Your task to perform on an android device: uninstall "Messages" Image 0: 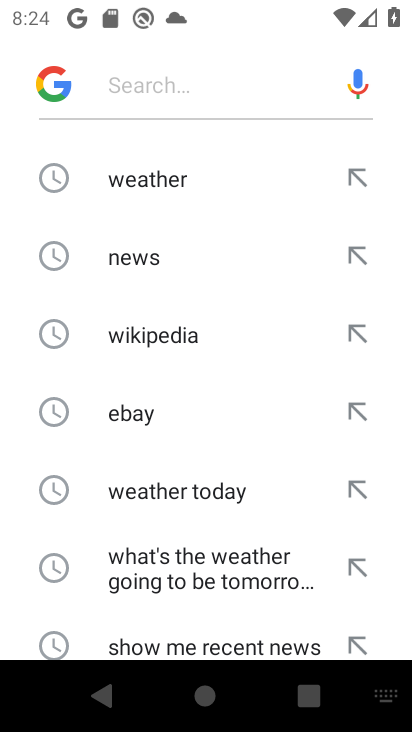
Step 0: press back button
Your task to perform on an android device: uninstall "Messages" Image 1: 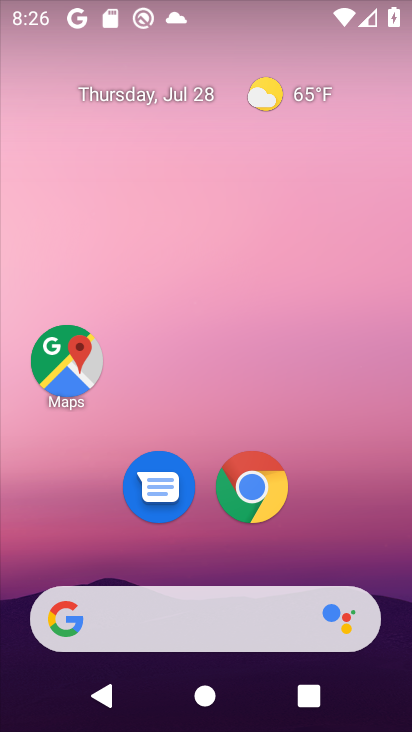
Step 1: drag from (249, 661) to (264, 231)
Your task to perform on an android device: uninstall "Messages" Image 2: 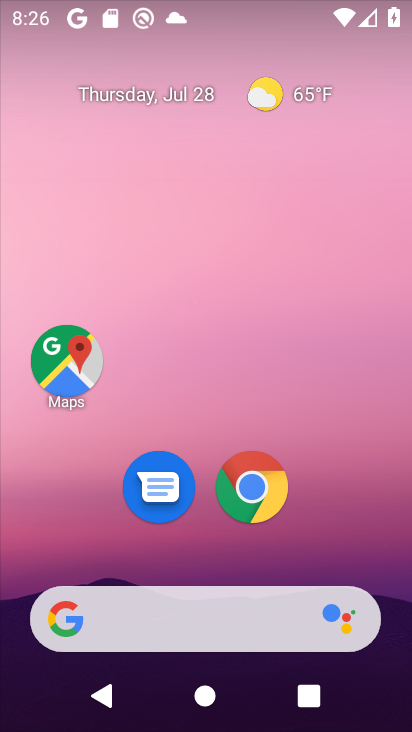
Step 2: drag from (278, 520) to (278, 350)
Your task to perform on an android device: uninstall "Messages" Image 3: 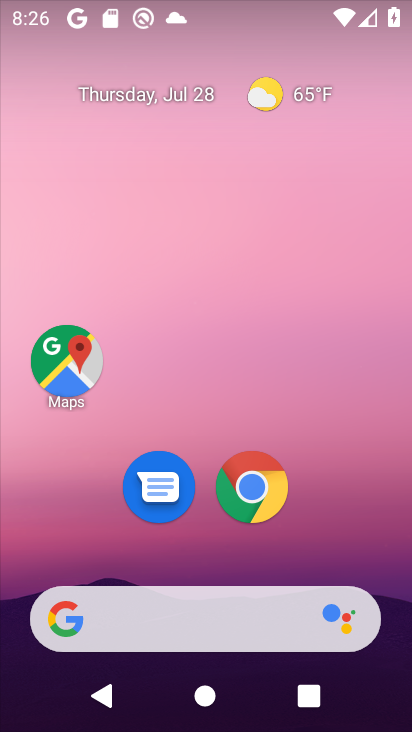
Step 3: drag from (237, 680) to (173, 245)
Your task to perform on an android device: uninstall "Messages" Image 4: 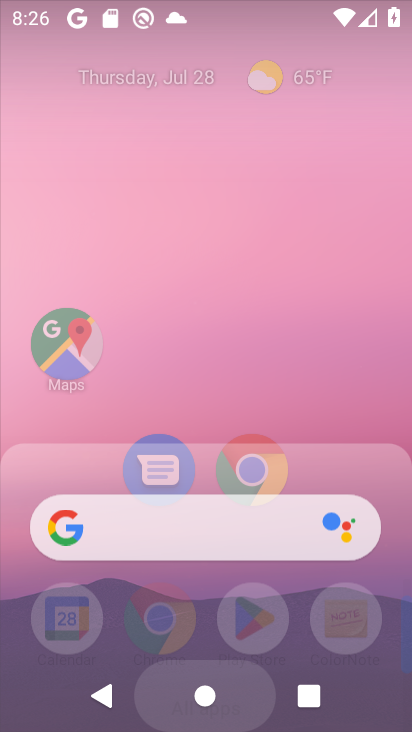
Step 4: drag from (215, 498) to (214, 306)
Your task to perform on an android device: uninstall "Messages" Image 5: 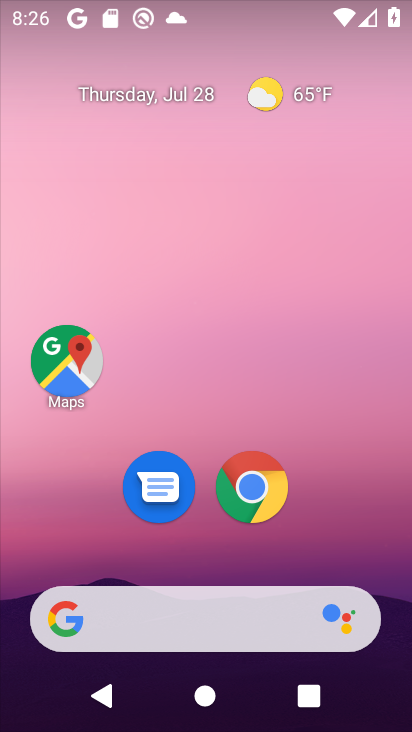
Step 5: drag from (231, 559) to (136, 188)
Your task to perform on an android device: uninstall "Messages" Image 6: 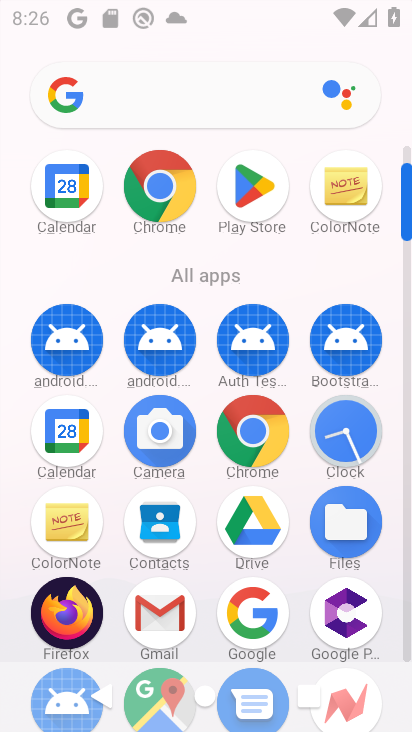
Step 6: drag from (270, 575) to (209, 152)
Your task to perform on an android device: uninstall "Messages" Image 7: 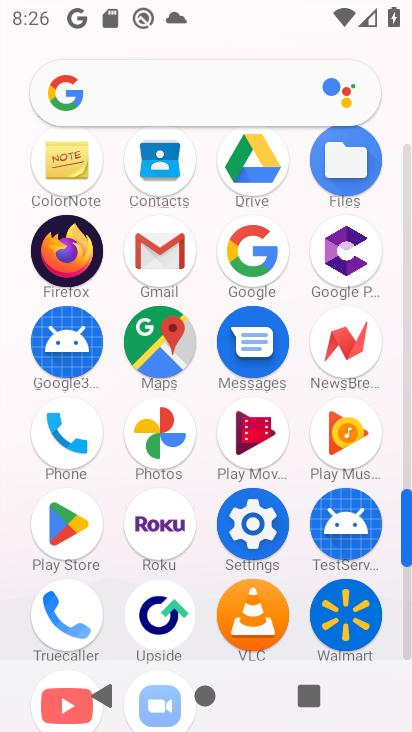
Step 7: drag from (215, 373) to (208, 271)
Your task to perform on an android device: uninstall "Messages" Image 8: 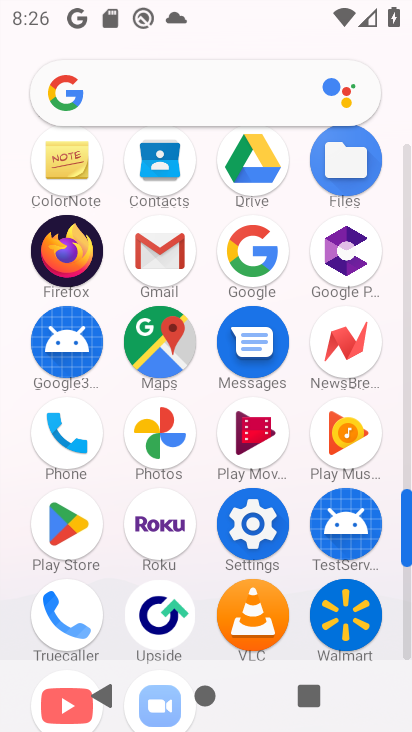
Step 8: click (260, 345)
Your task to perform on an android device: uninstall "Messages" Image 9: 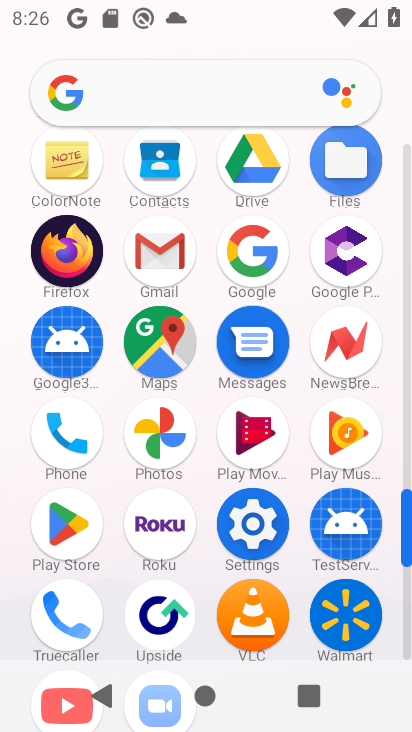
Step 9: click (259, 345)
Your task to perform on an android device: uninstall "Messages" Image 10: 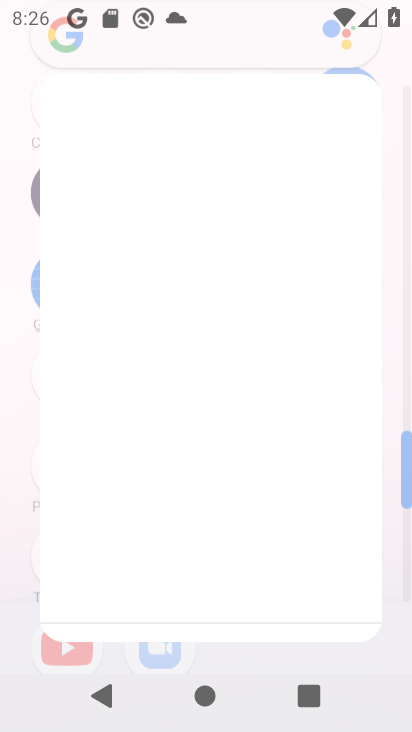
Step 10: click (258, 346)
Your task to perform on an android device: uninstall "Messages" Image 11: 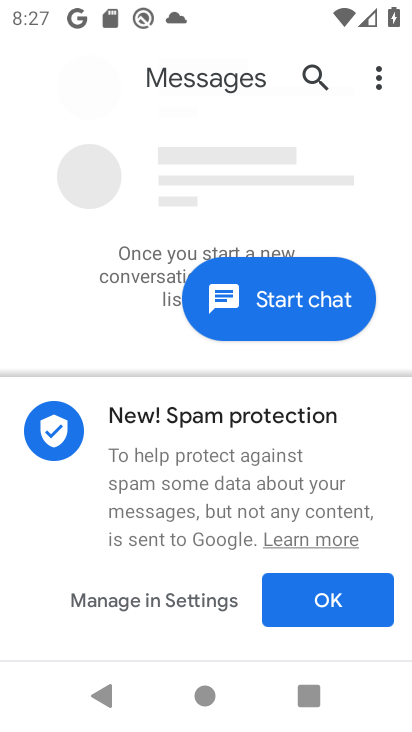
Step 11: click (306, 595)
Your task to perform on an android device: uninstall "Messages" Image 12: 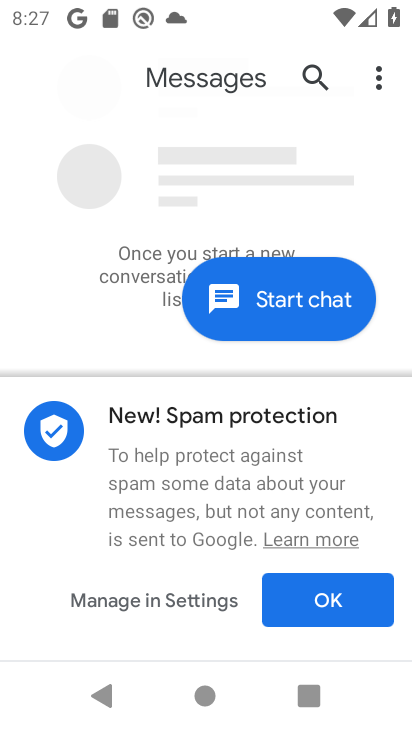
Step 12: click (307, 596)
Your task to perform on an android device: uninstall "Messages" Image 13: 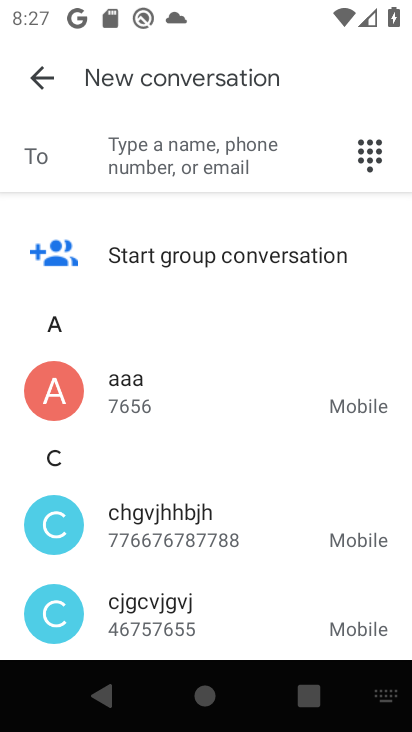
Step 13: press back button
Your task to perform on an android device: uninstall "Messages" Image 14: 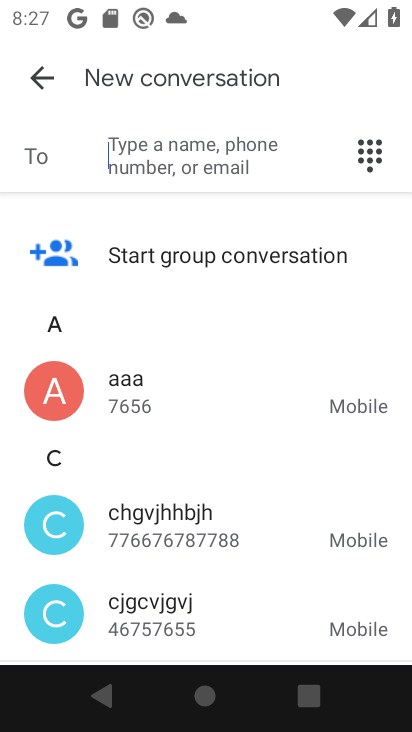
Step 14: press back button
Your task to perform on an android device: uninstall "Messages" Image 15: 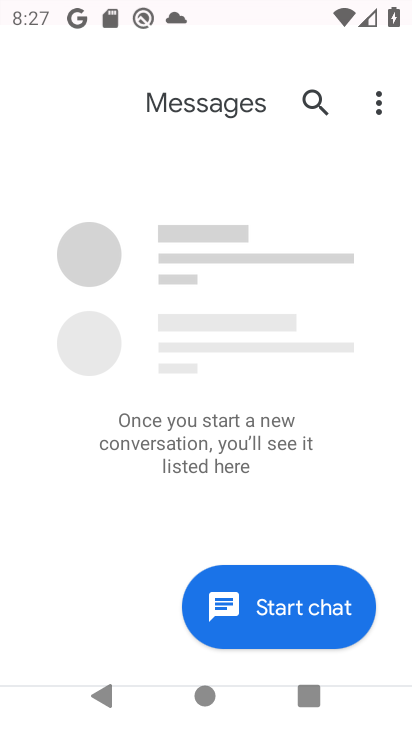
Step 15: click (54, 85)
Your task to perform on an android device: uninstall "Messages" Image 16: 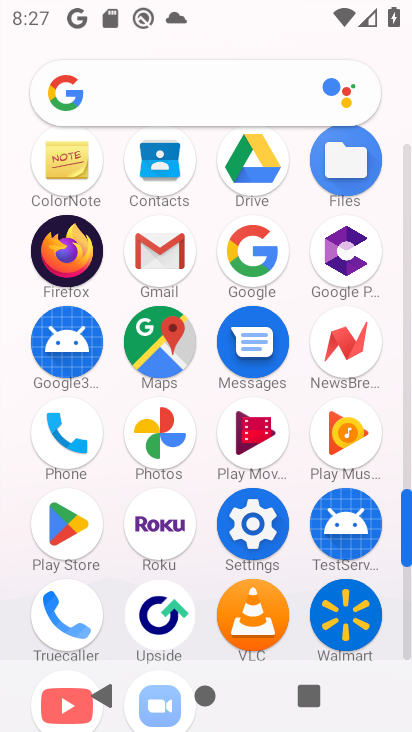
Step 16: click (52, 84)
Your task to perform on an android device: uninstall "Messages" Image 17: 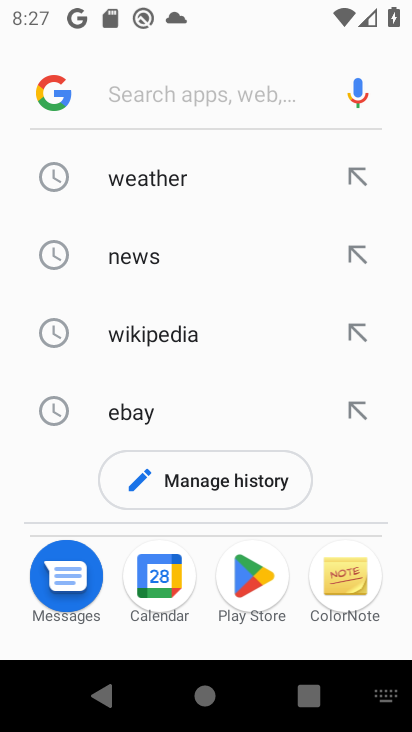
Step 17: press back button
Your task to perform on an android device: uninstall "Messages" Image 18: 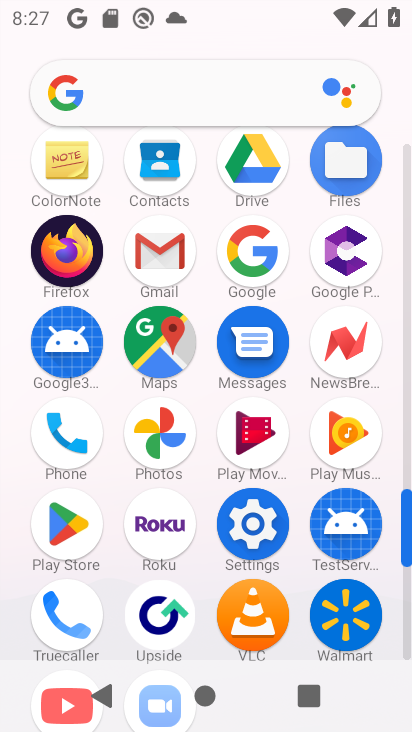
Step 18: drag from (296, 223) to (316, 513)
Your task to perform on an android device: uninstall "Messages" Image 19: 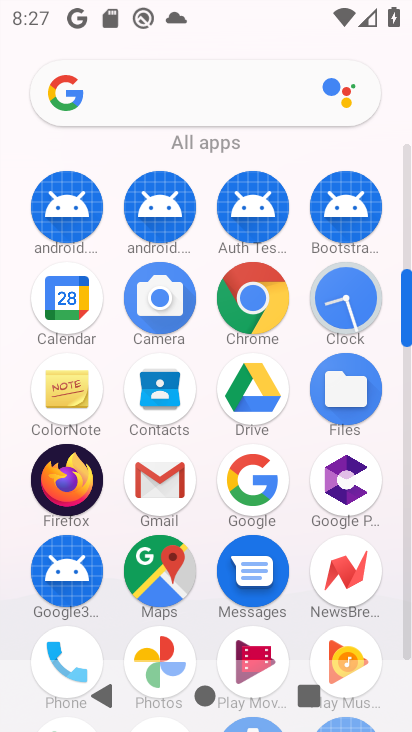
Step 19: drag from (316, 203) to (295, 448)
Your task to perform on an android device: uninstall "Messages" Image 20: 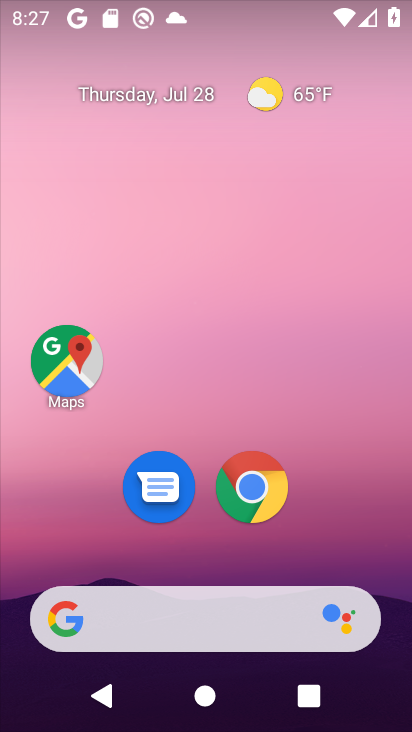
Step 20: drag from (255, 635) to (206, 264)
Your task to perform on an android device: uninstall "Messages" Image 21: 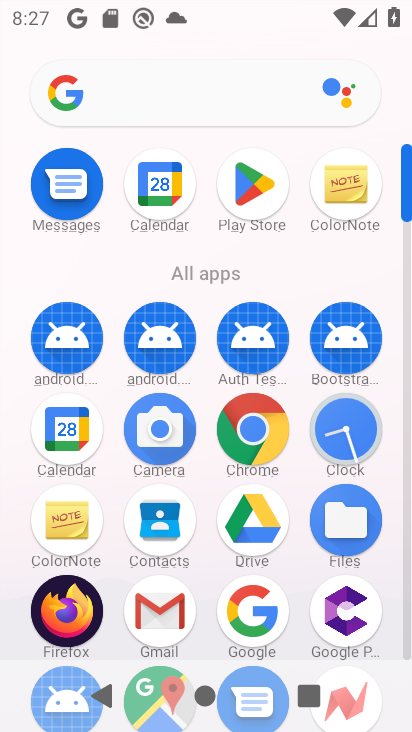
Step 21: drag from (210, 527) to (173, 275)
Your task to perform on an android device: uninstall "Messages" Image 22: 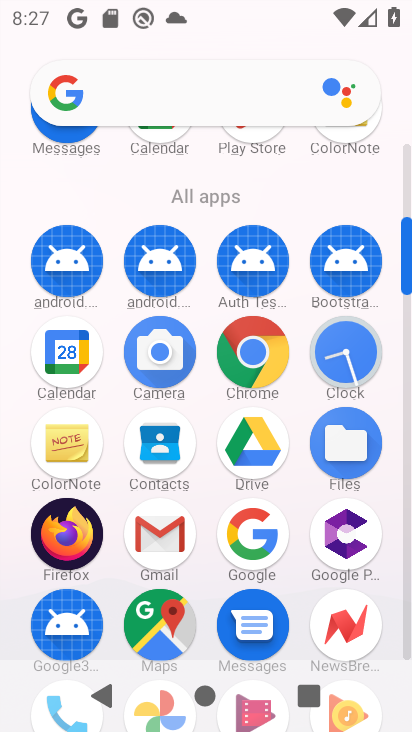
Step 22: drag from (184, 555) to (184, 328)
Your task to perform on an android device: uninstall "Messages" Image 23: 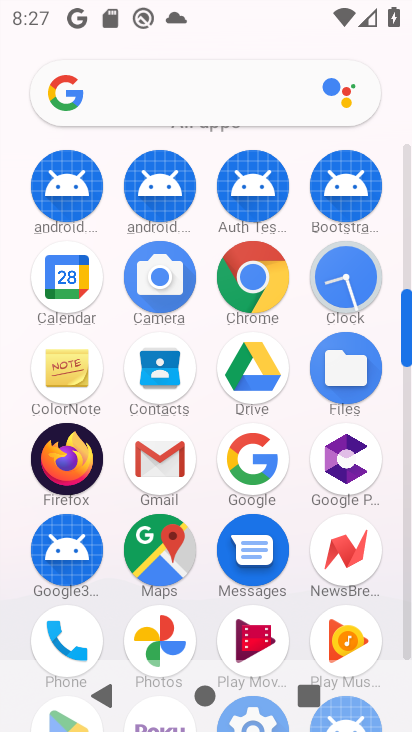
Step 23: drag from (277, 208) to (279, 505)
Your task to perform on an android device: uninstall "Messages" Image 24: 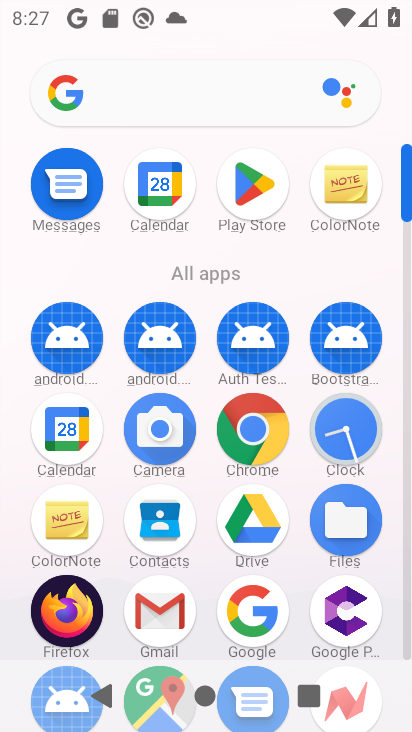
Step 24: click (248, 193)
Your task to perform on an android device: uninstall "Messages" Image 25: 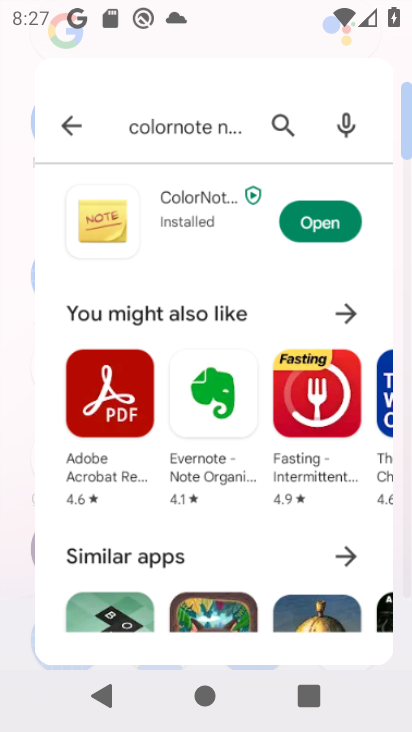
Step 25: click (248, 193)
Your task to perform on an android device: uninstall "Messages" Image 26: 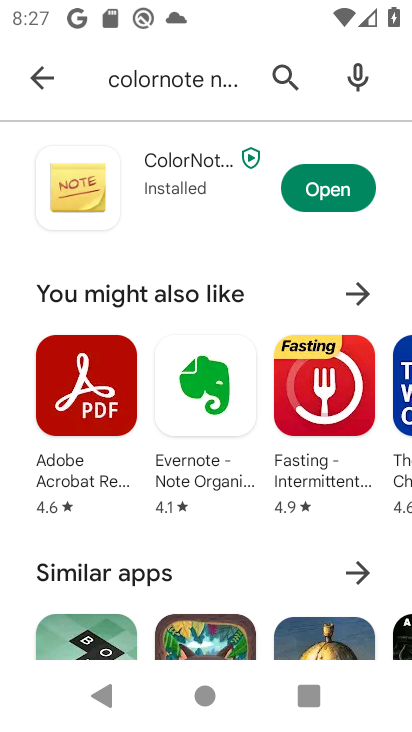
Step 26: click (51, 74)
Your task to perform on an android device: uninstall "Messages" Image 27: 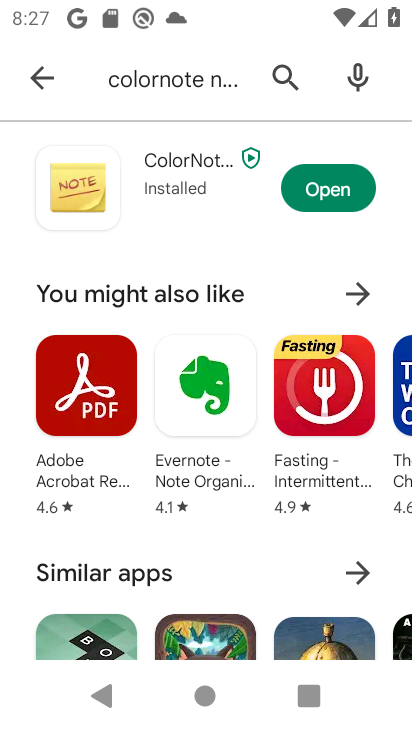
Step 27: click (45, 72)
Your task to perform on an android device: uninstall "Messages" Image 28: 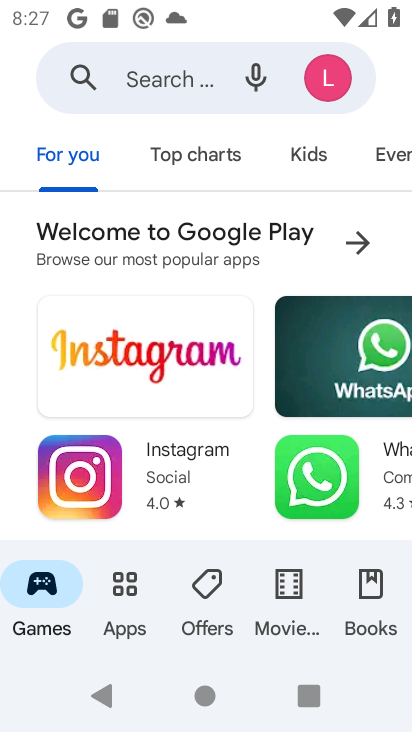
Step 28: click (137, 73)
Your task to perform on an android device: uninstall "Messages" Image 29: 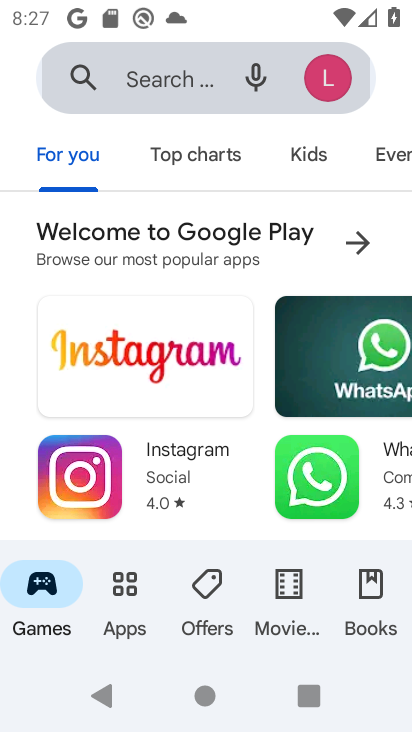
Step 29: click (138, 72)
Your task to perform on an android device: uninstall "Messages" Image 30: 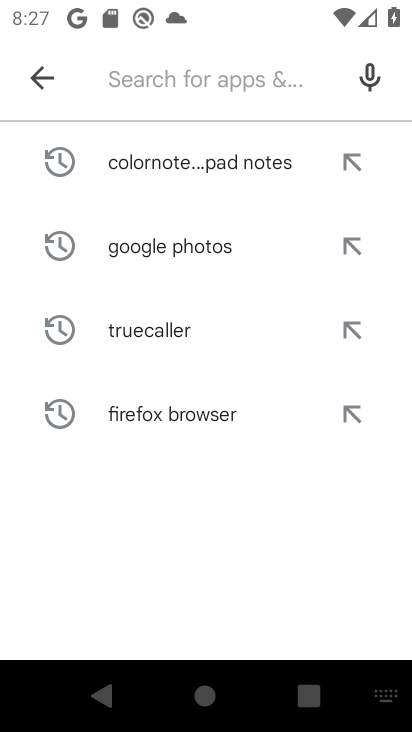
Step 30: type "messages"
Your task to perform on an android device: uninstall "Messages" Image 31: 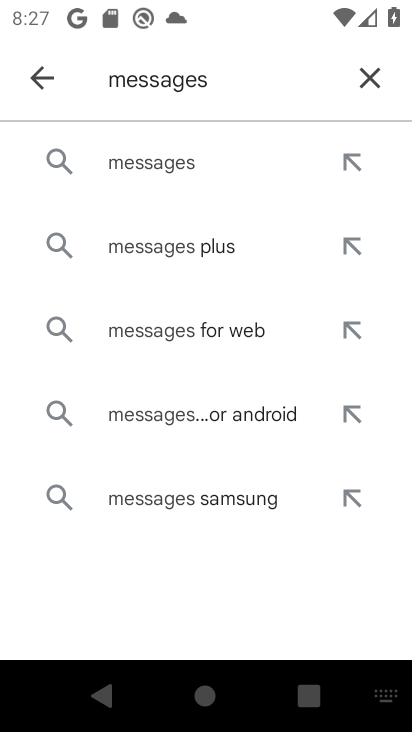
Step 31: click (163, 164)
Your task to perform on an android device: uninstall "Messages" Image 32: 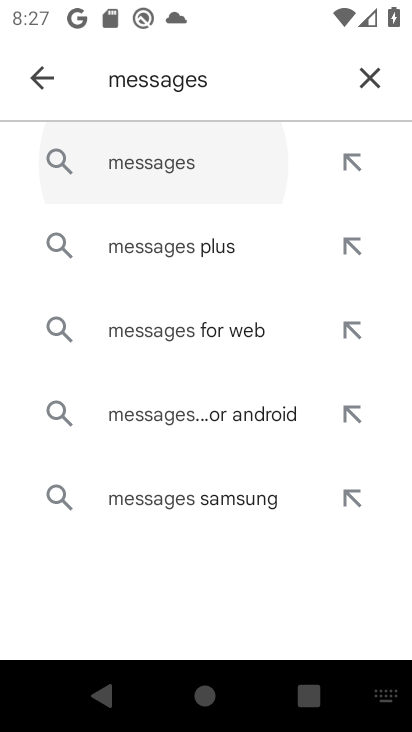
Step 32: click (163, 164)
Your task to perform on an android device: uninstall "Messages" Image 33: 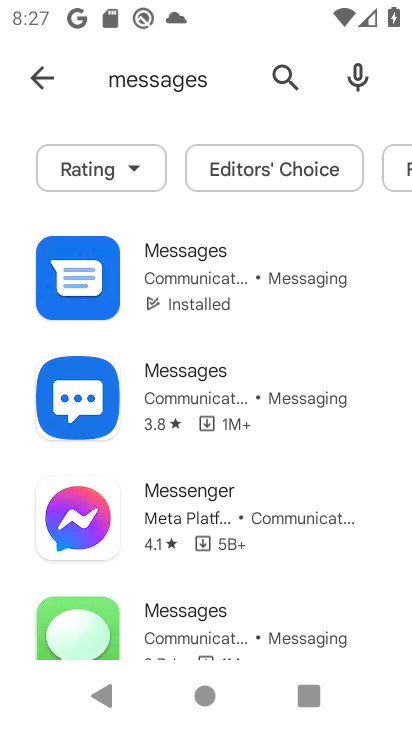
Step 33: task complete